Your task to perform on an android device: Check out the new ikea catalog. Image 0: 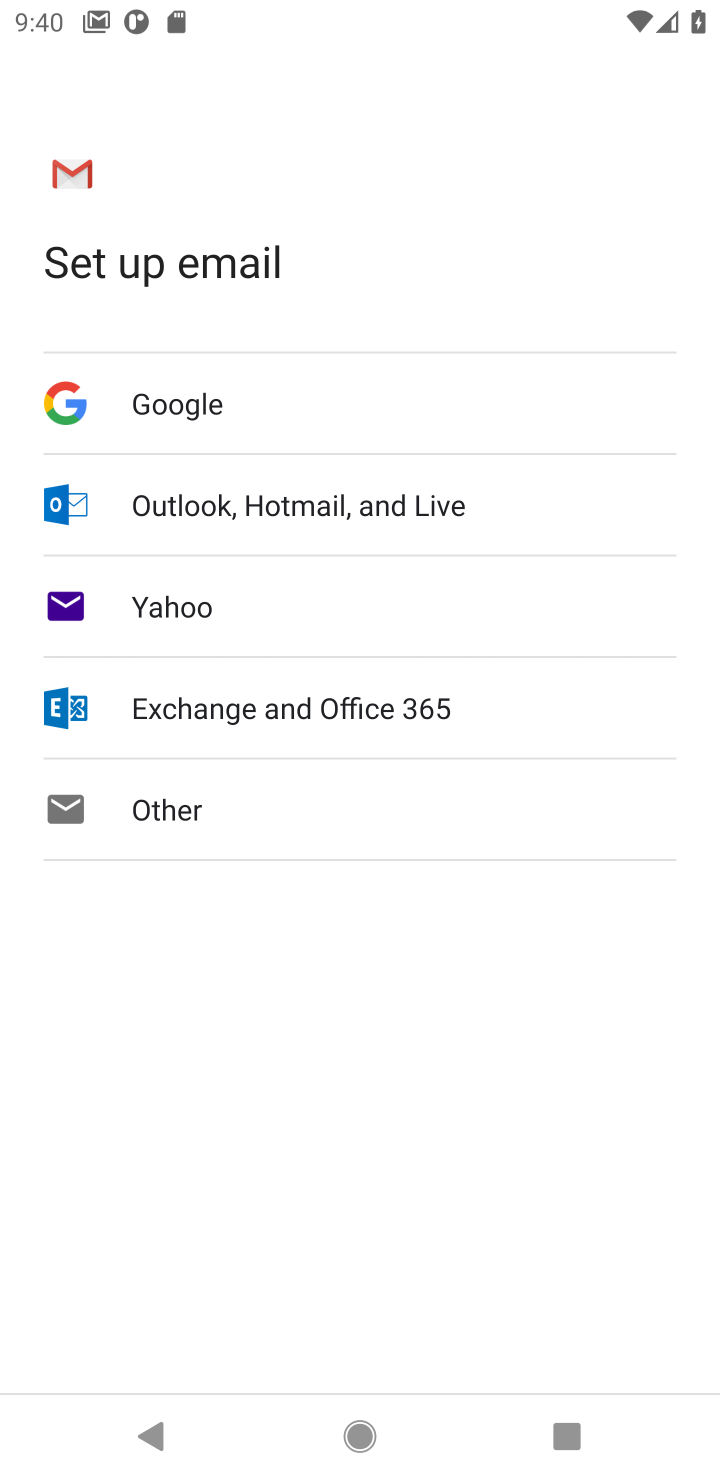
Step 0: press home button
Your task to perform on an android device: Check out the new ikea catalog. Image 1: 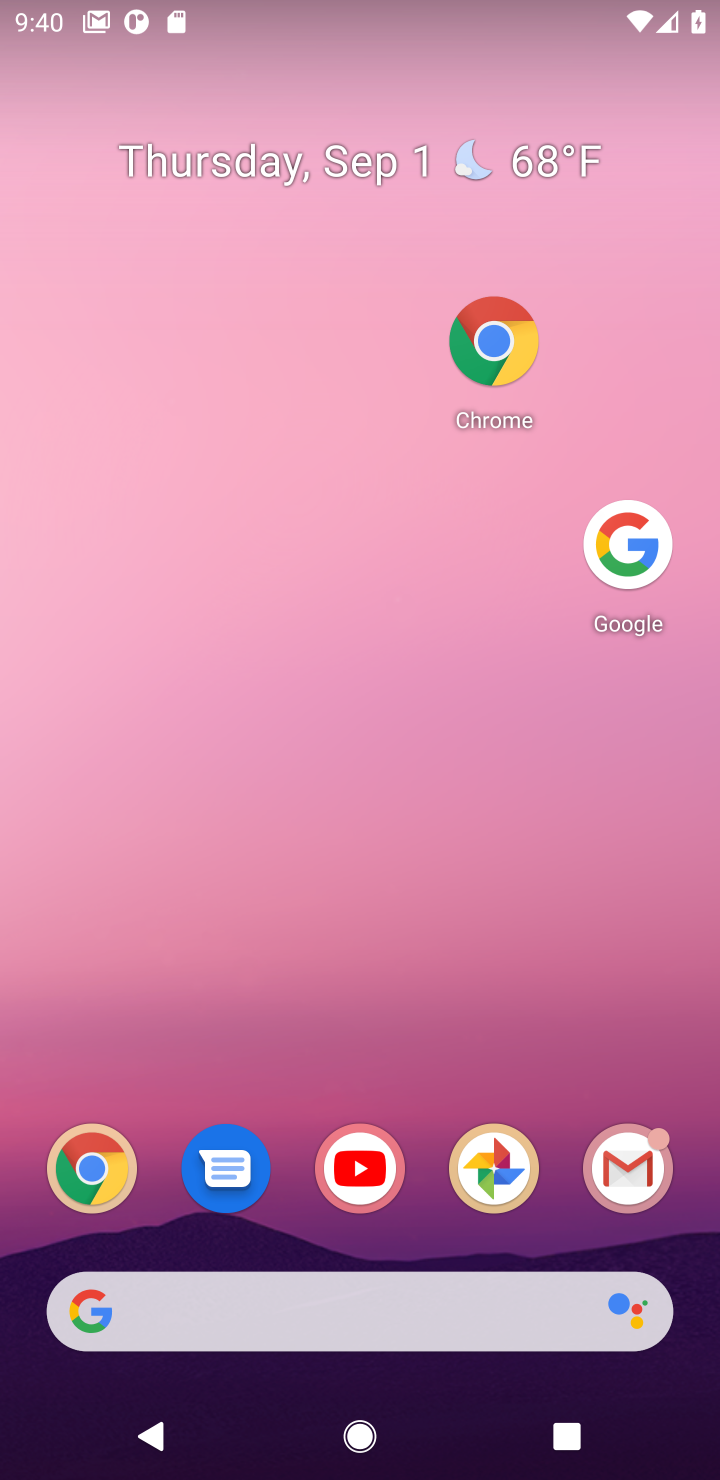
Step 1: click (621, 553)
Your task to perform on an android device: Check out the new ikea catalog. Image 2: 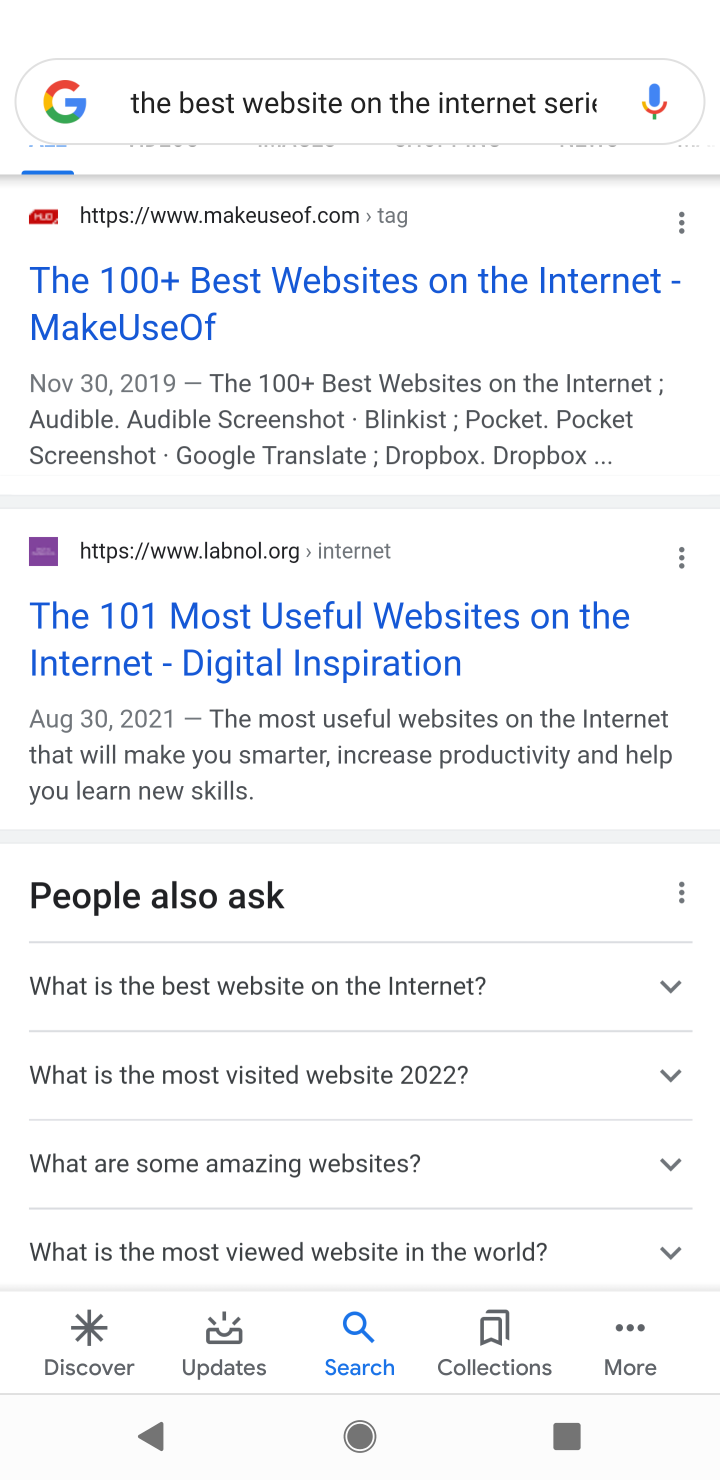
Step 2: drag from (459, 680) to (480, 1080)
Your task to perform on an android device: Check out the new ikea catalog. Image 3: 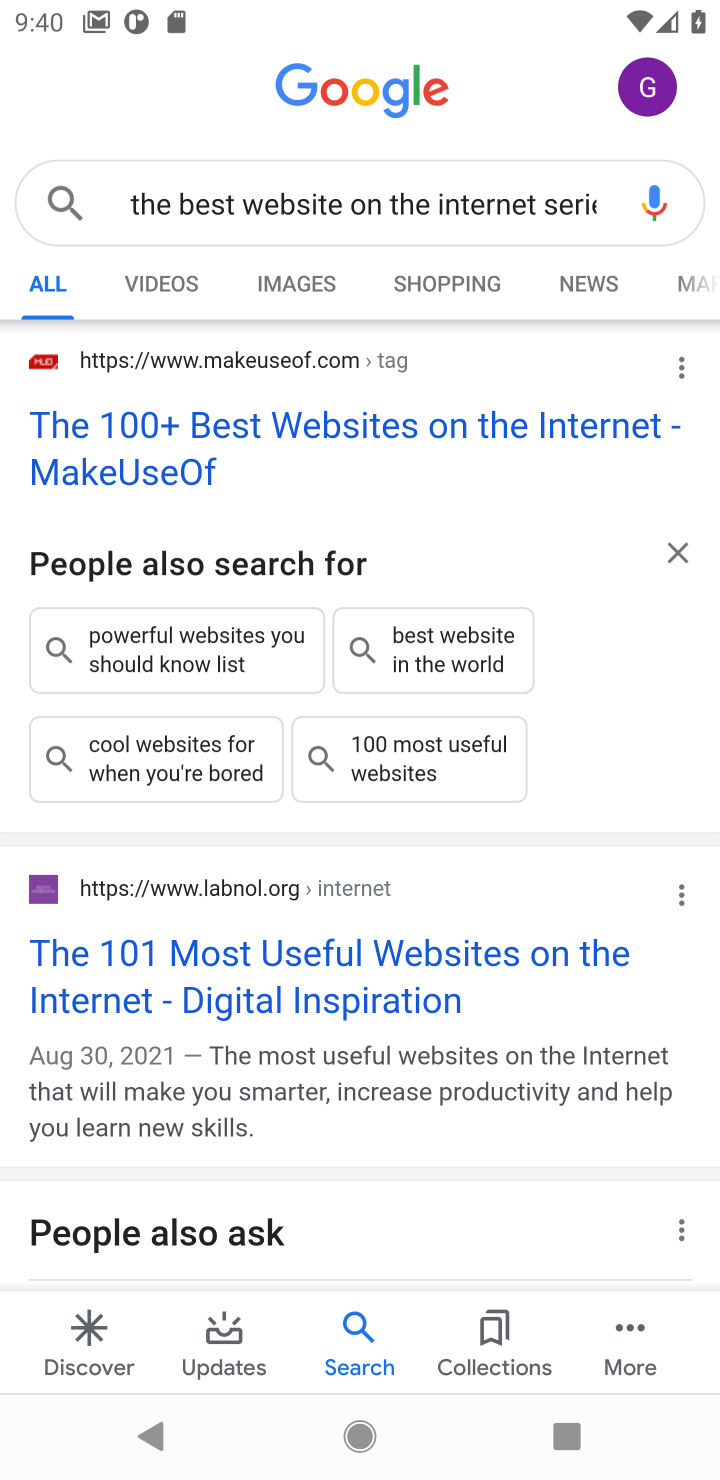
Step 3: click (561, 190)
Your task to perform on an android device: Check out the new ikea catalog. Image 4: 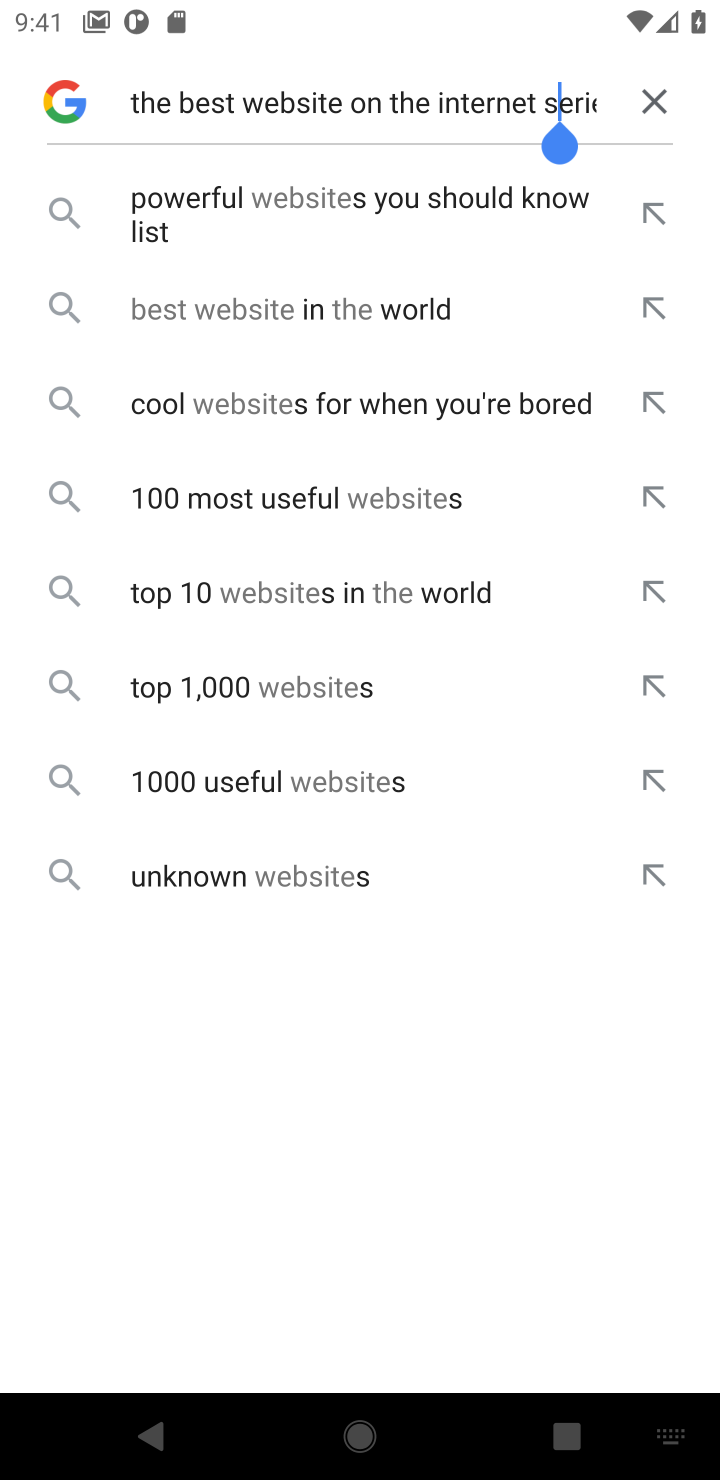
Step 4: click (651, 120)
Your task to perform on an android device: Check out the new ikea catalog. Image 5: 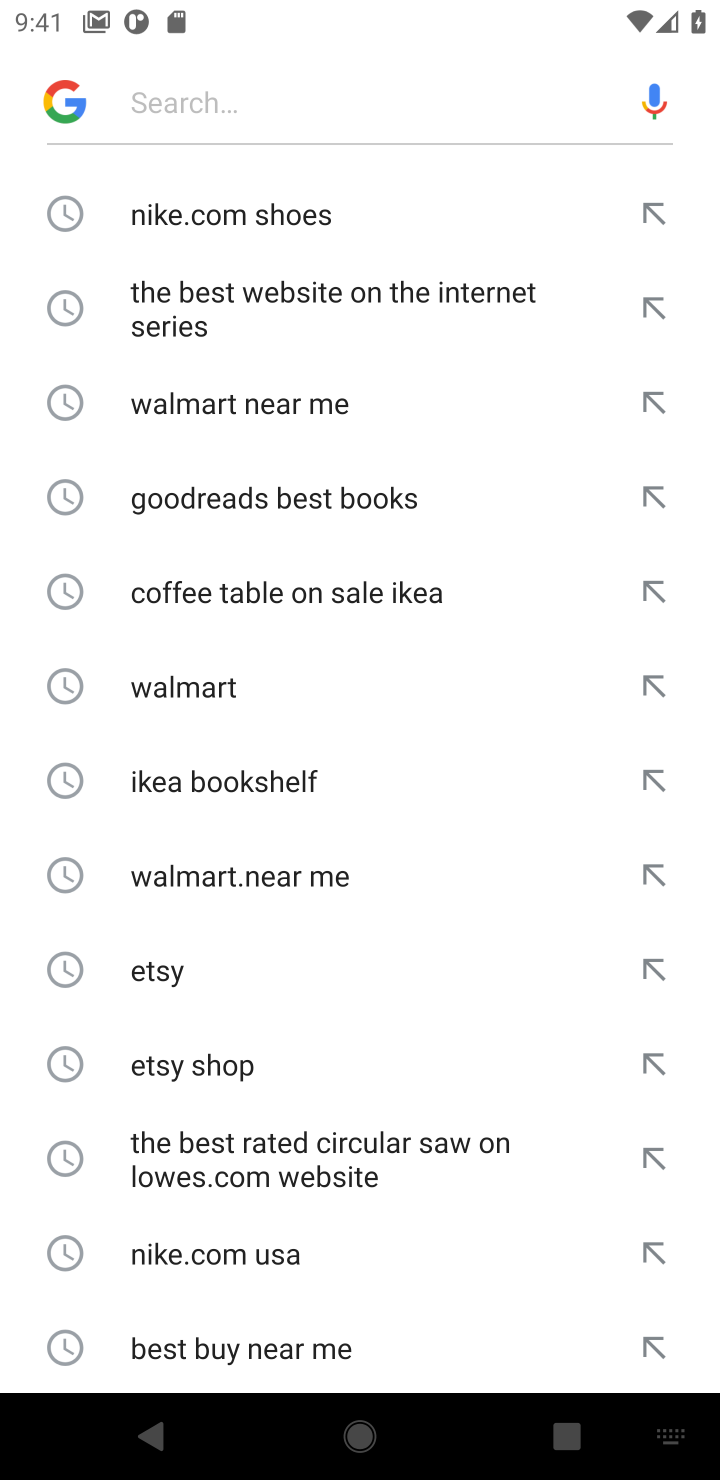
Step 5: click (206, 92)
Your task to perform on an android device: Check out the new ikea catalog. Image 6: 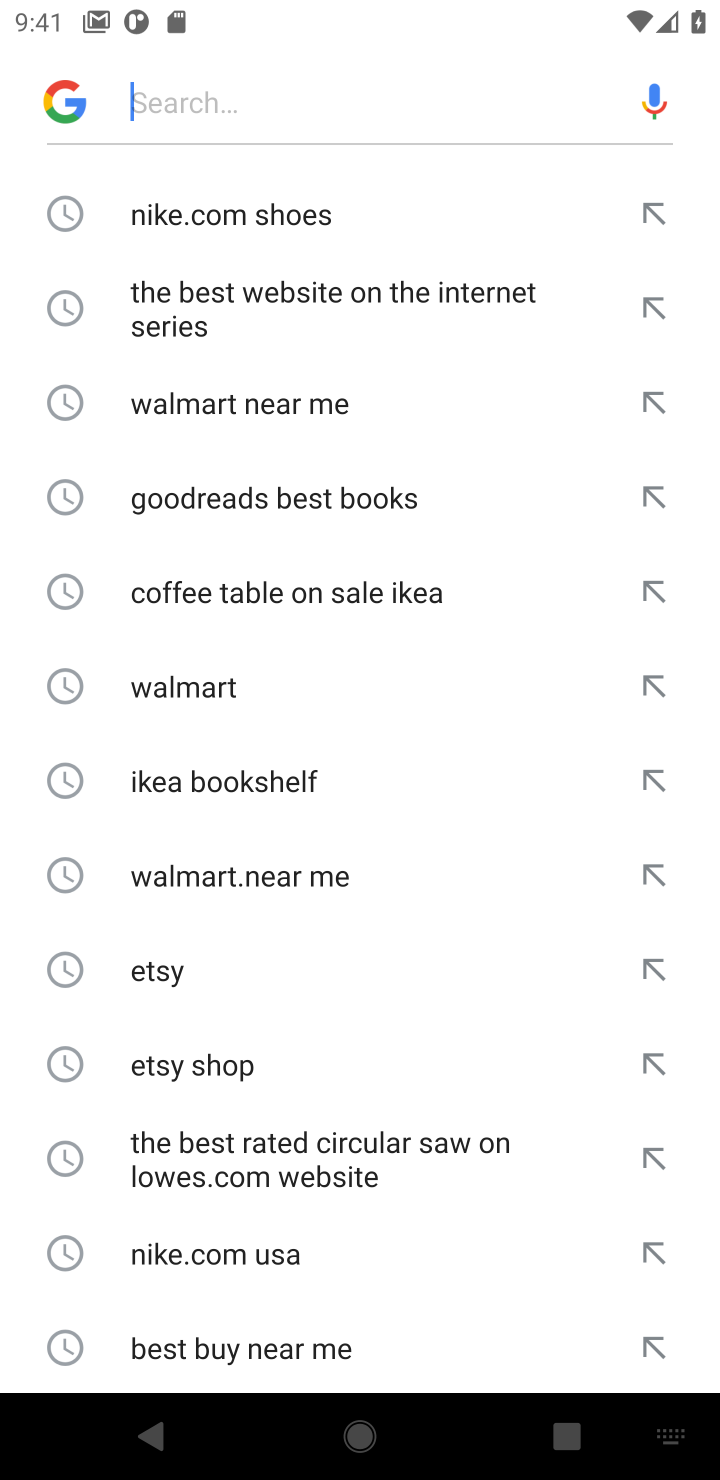
Step 6: type " ikea catalog"
Your task to perform on an android device: Check out the new ikea catalog. Image 7: 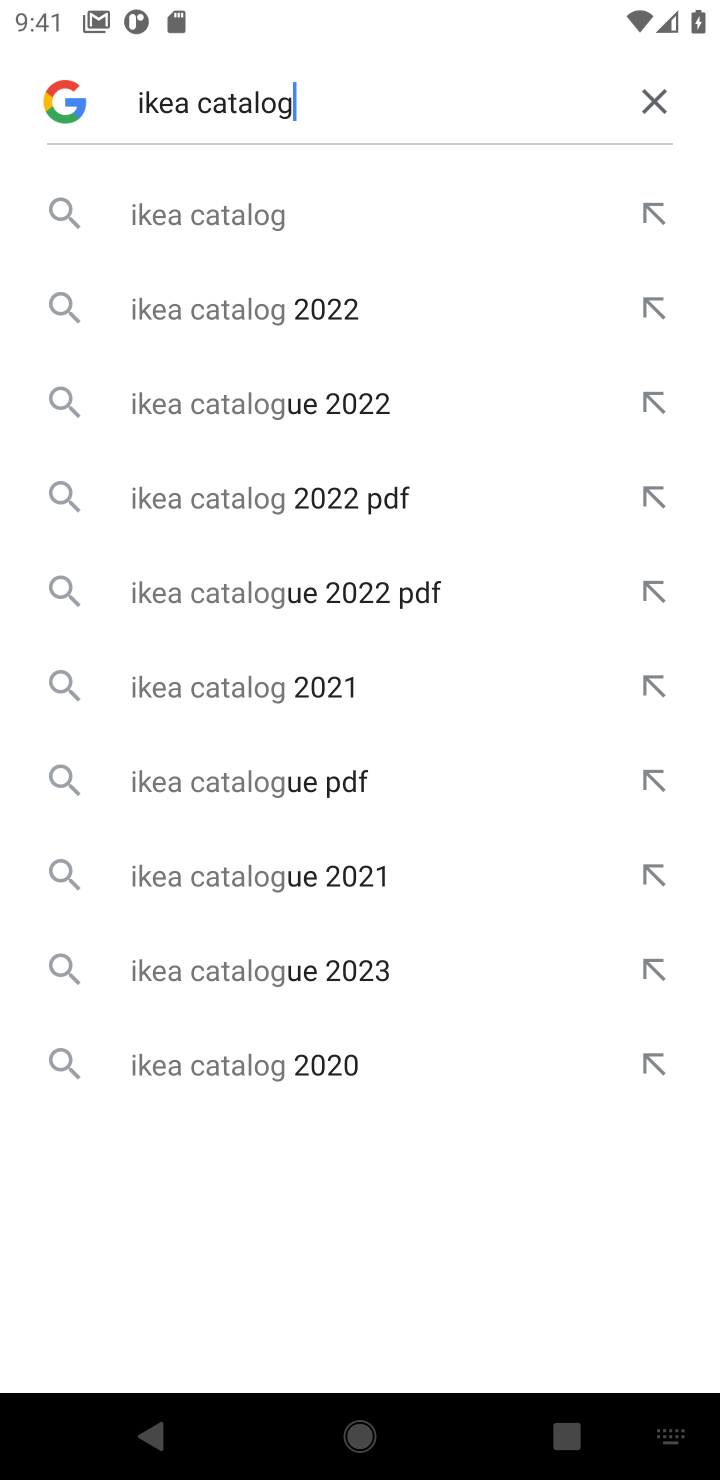
Step 7: click (259, 317)
Your task to perform on an android device: Check out the new ikea catalog. Image 8: 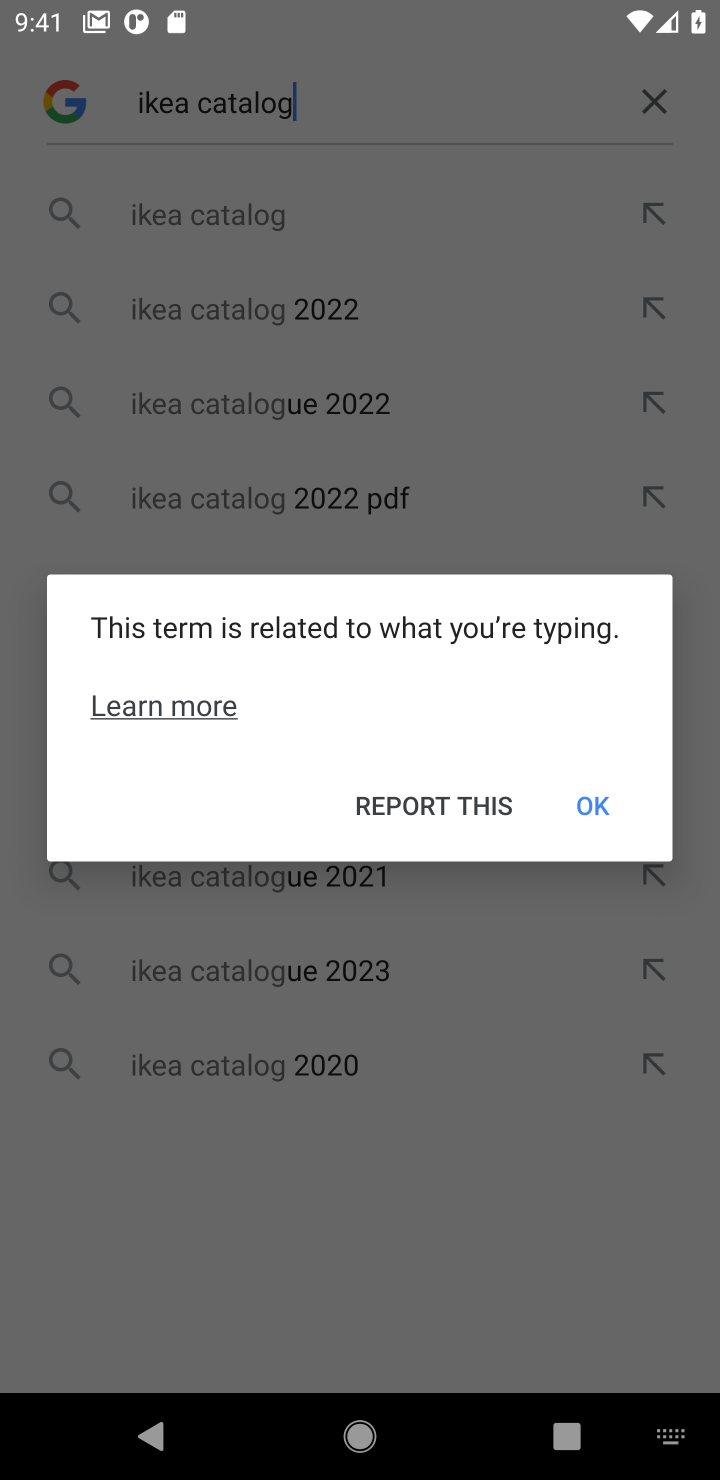
Step 8: click (580, 791)
Your task to perform on an android device: Check out the new ikea catalog. Image 9: 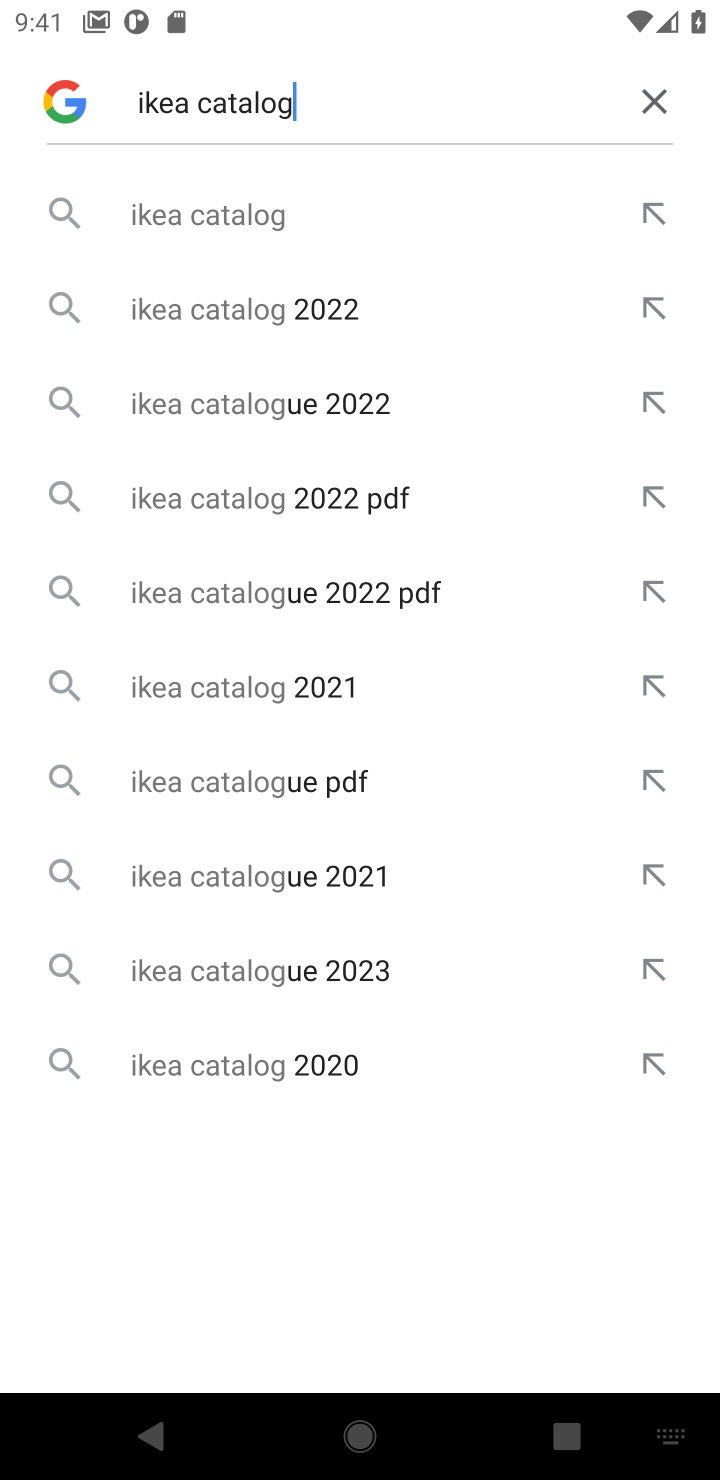
Step 9: click (266, 198)
Your task to perform on an android device: Check out the new ikea catalog. Image 10: 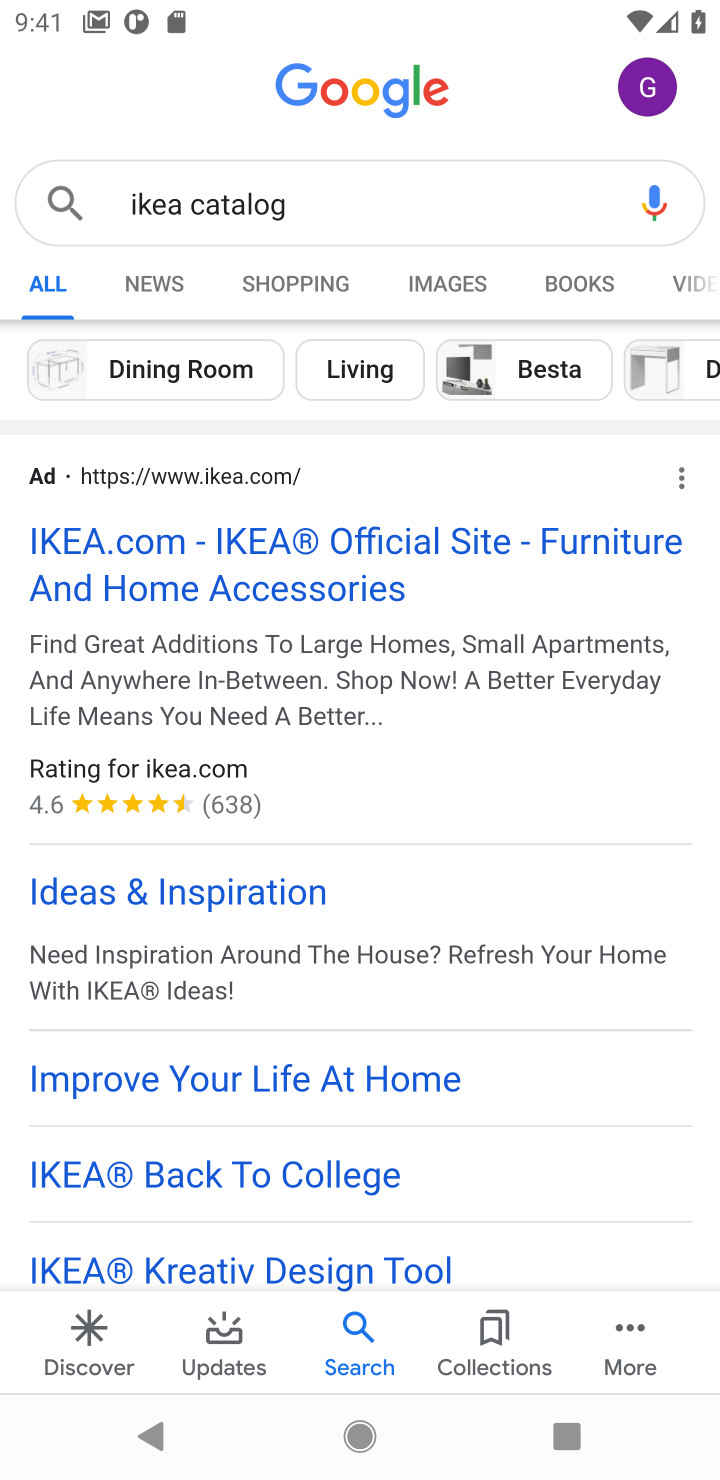
Step 10: click (293, 545)
Your task to perform on an android device: Check out the new ikea catalog. Image 11: 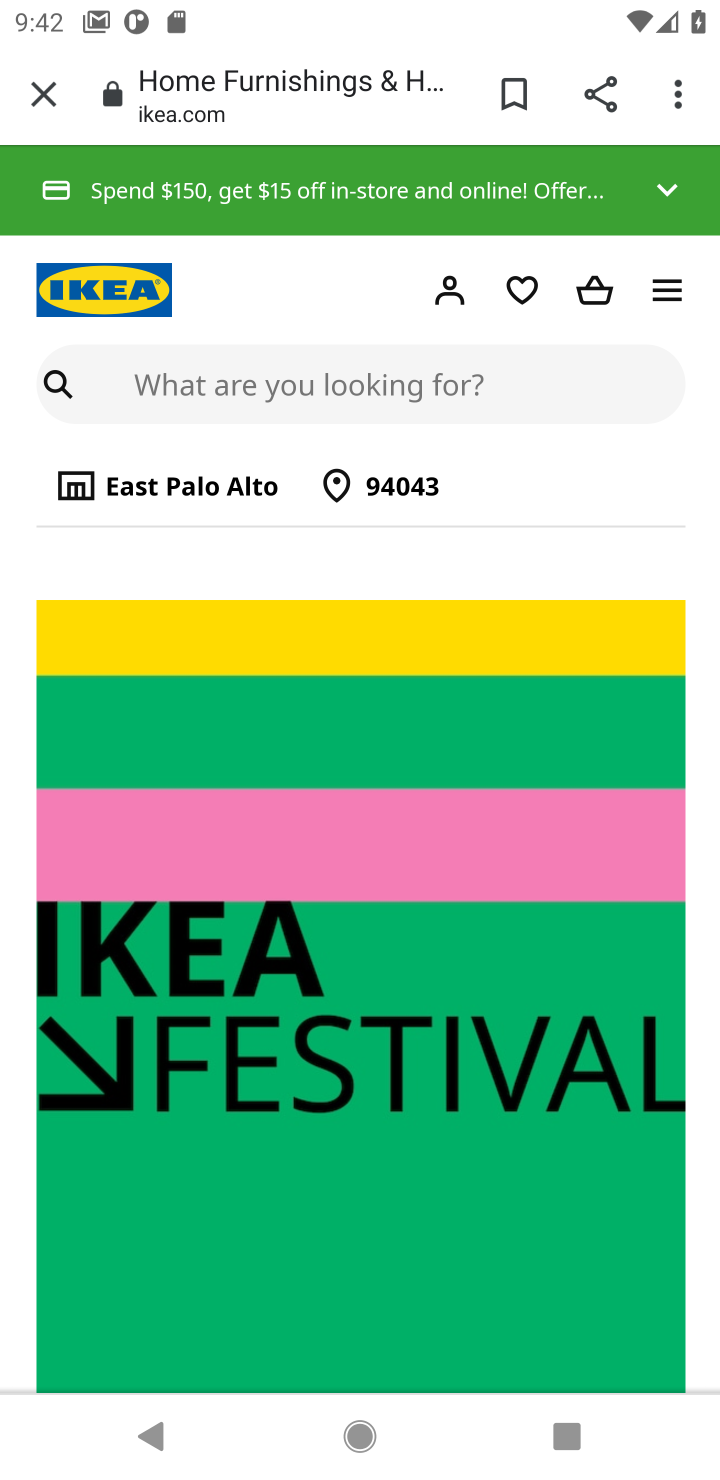
Step 11: task complete